Your task to perform on an android device: turn off notifications in google photos Image 0: 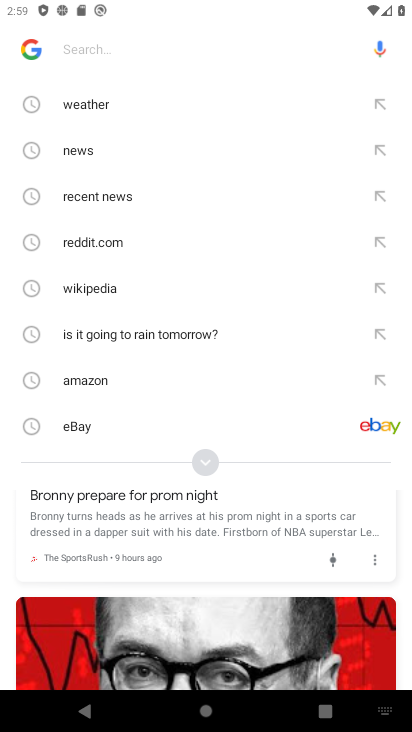
Step 0: press home button
Your task to perform on an android device: turn off notifications in google photos Image 1: 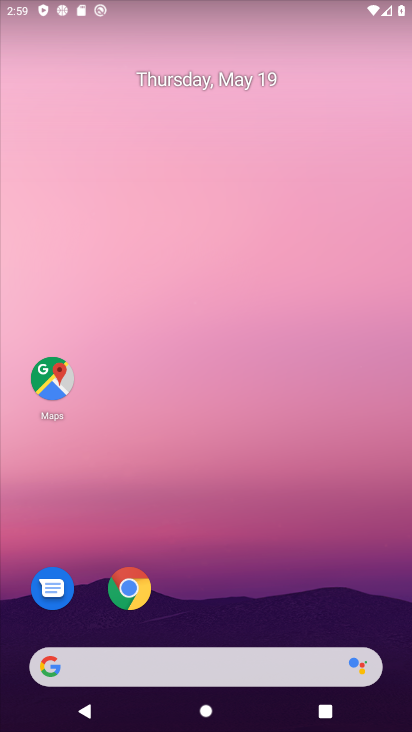
Step 1: drag from (354, 506) to (372, 131)
Your task to perform on an android device: turn off notifications in google photos Image 2: 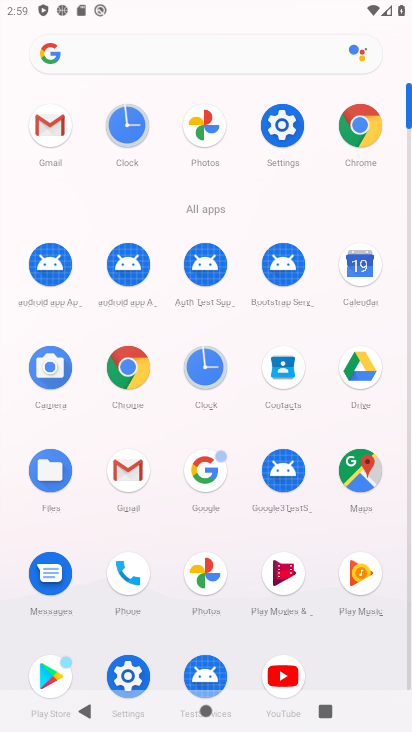
Step 2: click (203, 572)
Your task to perform on an android device: turn off notifications in google photos Image 3: 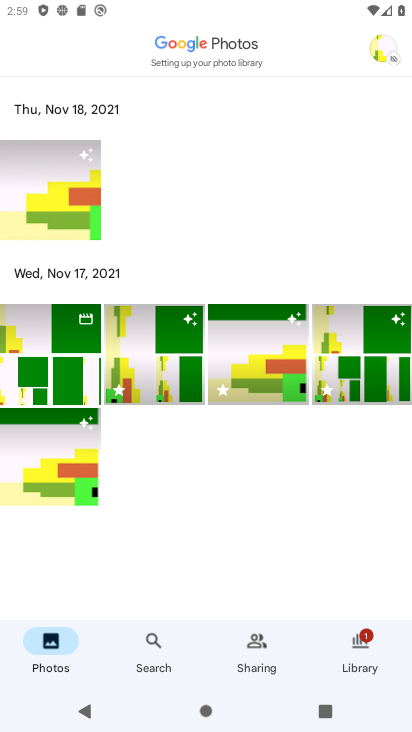
Step 3: click (385, 43)
Your task to perform on an android device: turn off notifications in google photos Image 4: 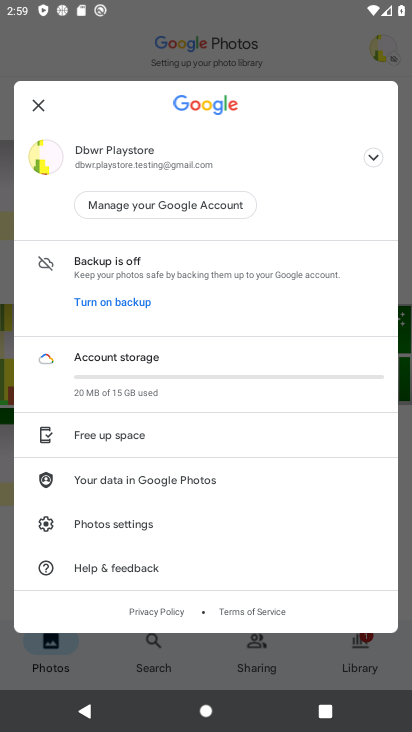
Step 4: click (139, 532)
Your task to perform on an android device: turn off notifications in google photos Image 5: 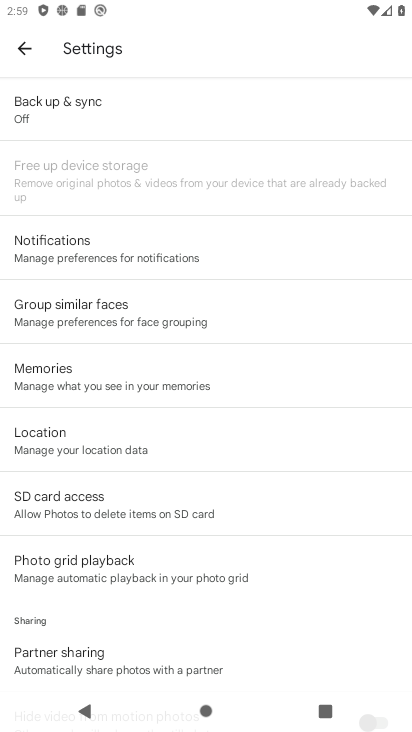
Step 5: click (121, 242)
Your task to perform on an android device: turn off notifications in google photos Image 6: 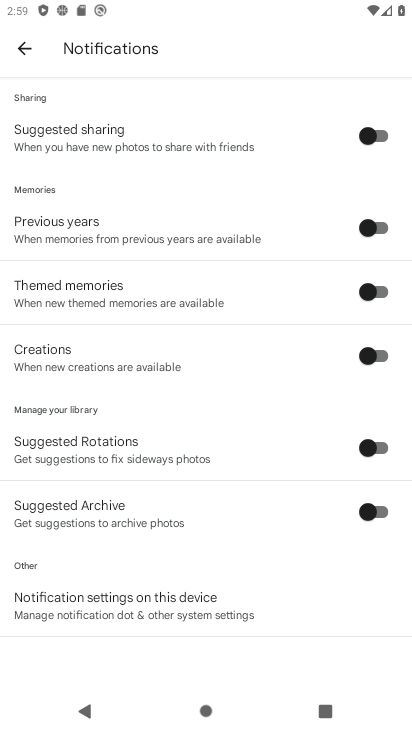
Step 6: click (193, 603)
Your task to perform on an android device: turn off notifications in google photos Image 7: 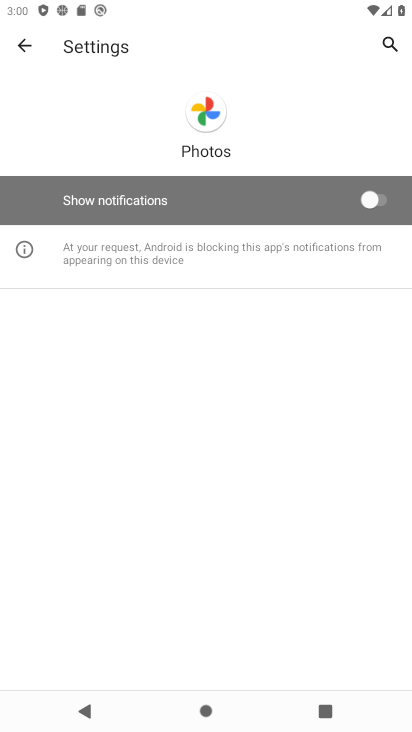
Step 7: task complete